Your task to perform on an android device: see creations saved in the google photos Image 0: 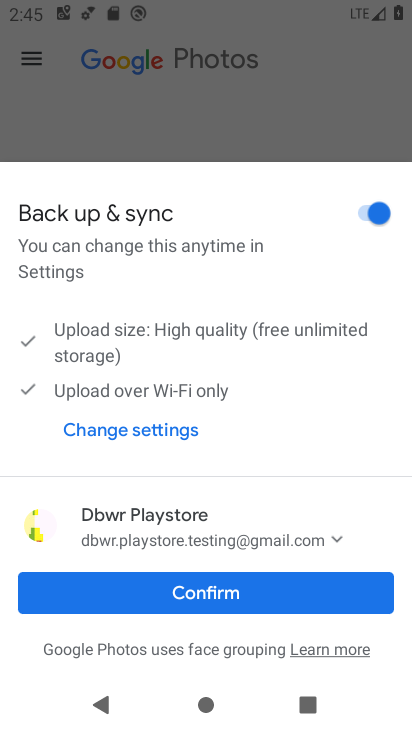
Step 0: click (258, 601)
Your task to perform on an android device: see creations saved in the google photos Image 1: 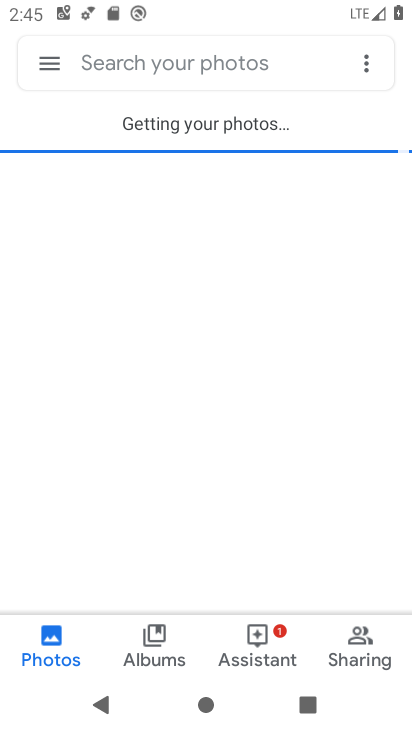
Step 1: click (203, 118)
Your task to perform on an android device: see creations saved in the google photos Image 2: 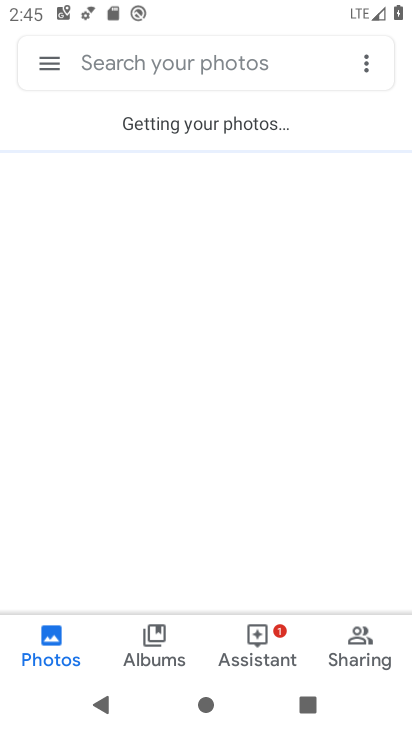
Step 2: click (221, 64)
Your task to perform on an android device: see creations saved in the google photos Image 3: 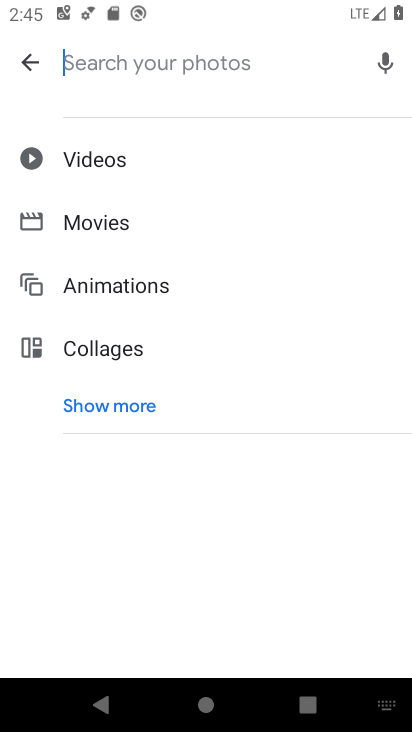
Step 3: type "creations"
Your task to perform on an android device: see creations saved in the google photos Image 4: 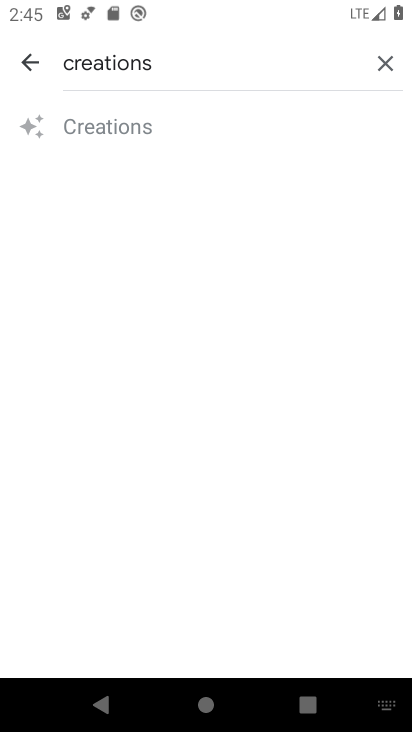
Step 4: click (148, 122)
Your task to perform on an android device: see creations saved in the google photos Image 5: 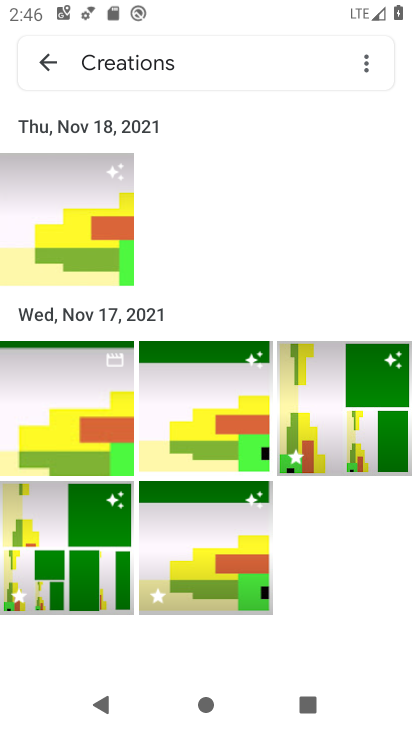
Step 5: task complete